Your task to perform on an android device: Search for usb-c to usb-a on bestbuy.com, select the first entry, and add it to the cart. Image 0: 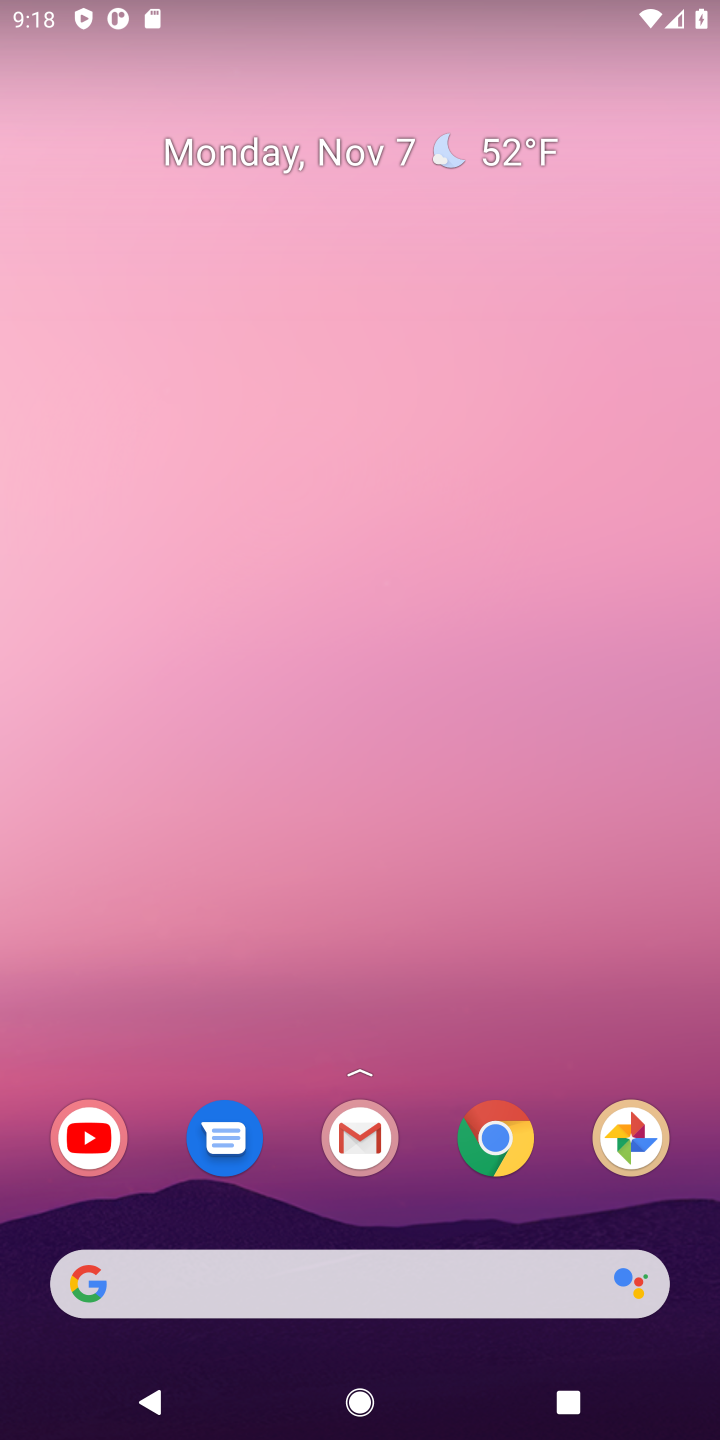
Step 0: drag from (305, 1177) to (410, 233)
Your task to perform on an android device: Search for usb-c to usb-a on bestbuy.com, select the first entry, and add it to the cart. Image 1: 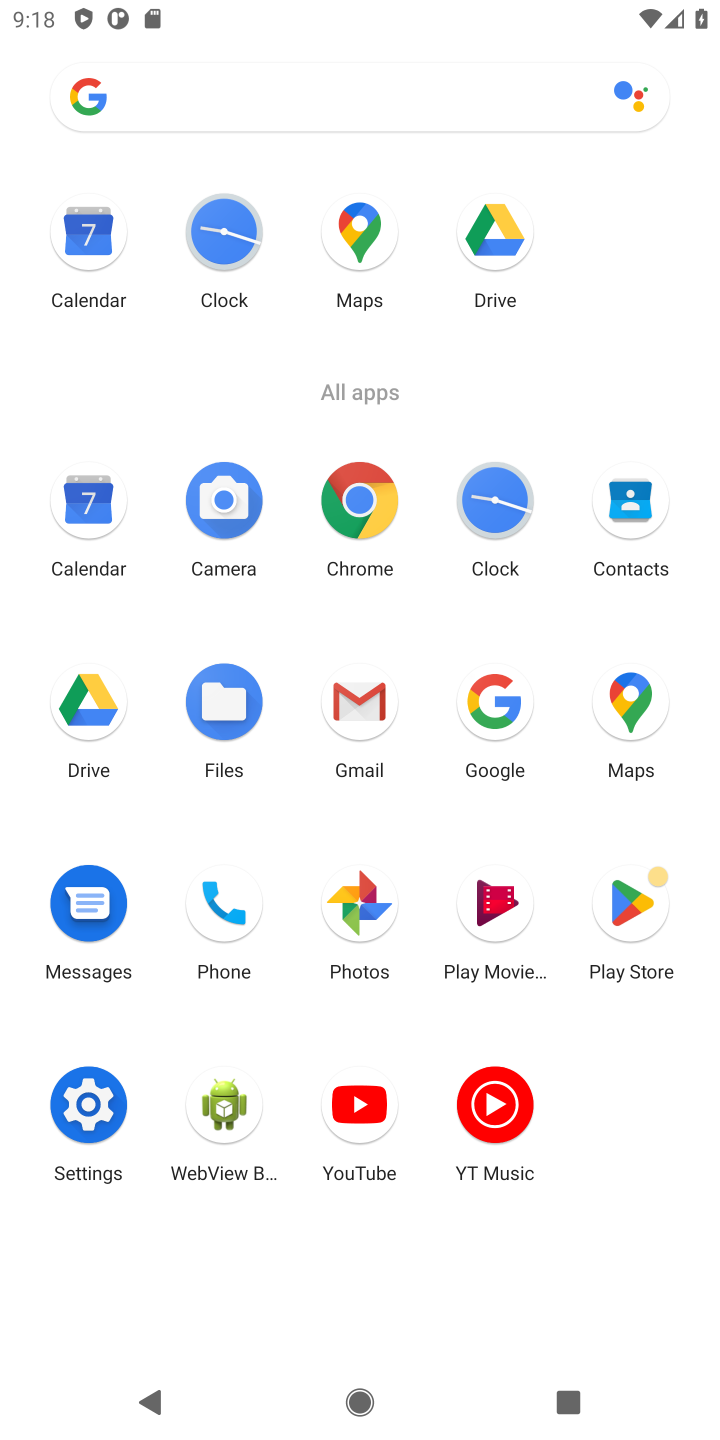
Step 1: click (509, 726)
Your task to perform on an android device: Search for usb-c to usb-a on bestbuy.com, select the first entry, and add it to the cart. Image 2: 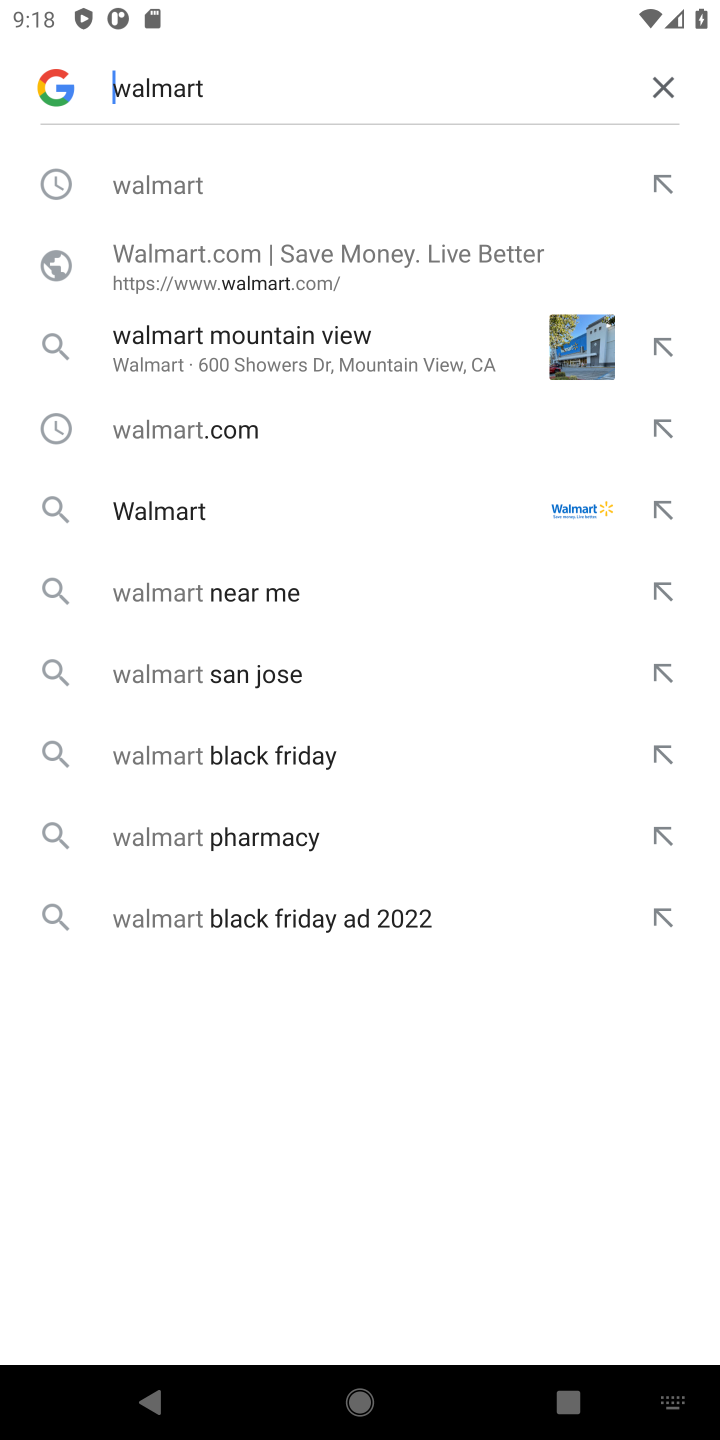
Step 2: click (668, 89)
Your task to perform on an android device: Search for usb-c to usb-a on bestbuy.com, select the first entry, and add it to the cart. Image 3: 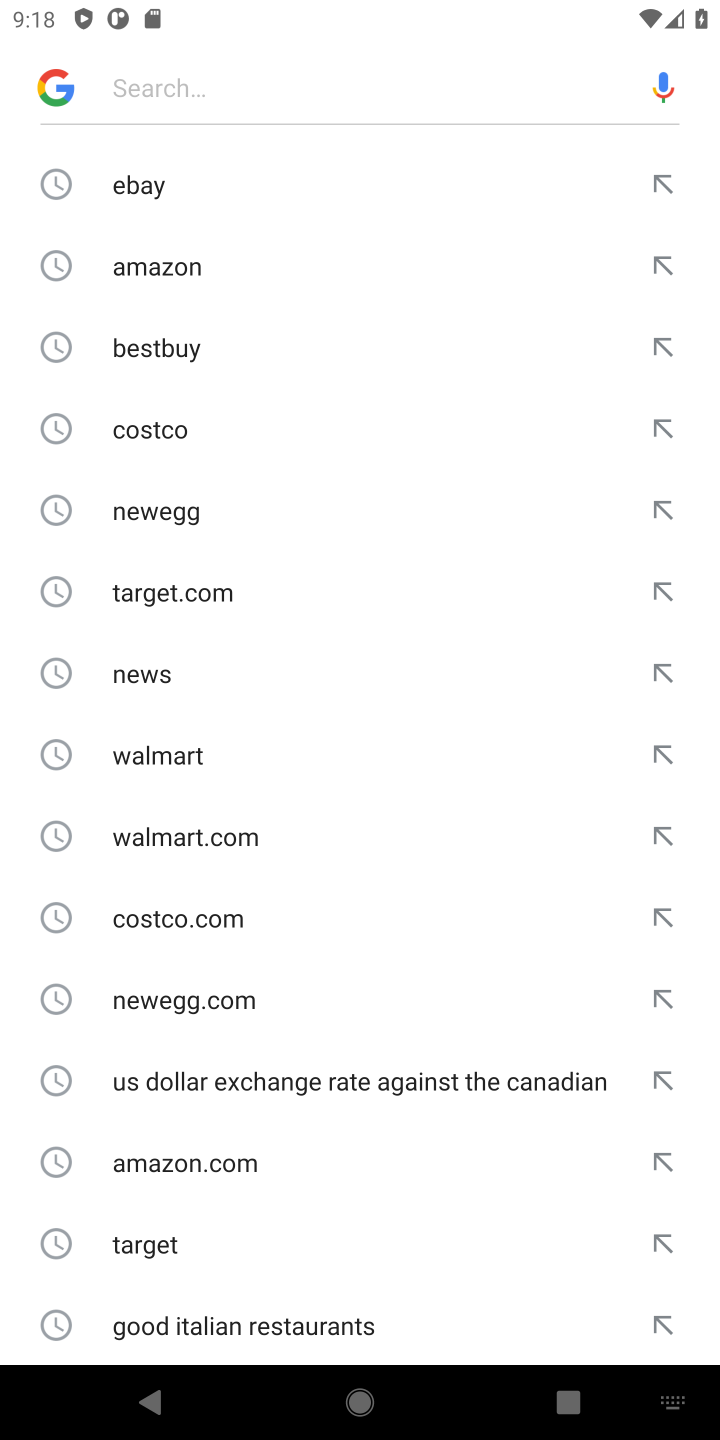
Step 3: type "bestbuy.com"
Your task to perform on an android device: Search for usb-c to usb-a on bestbuy.com, select the first entry, and add it to the cart. Image 4: 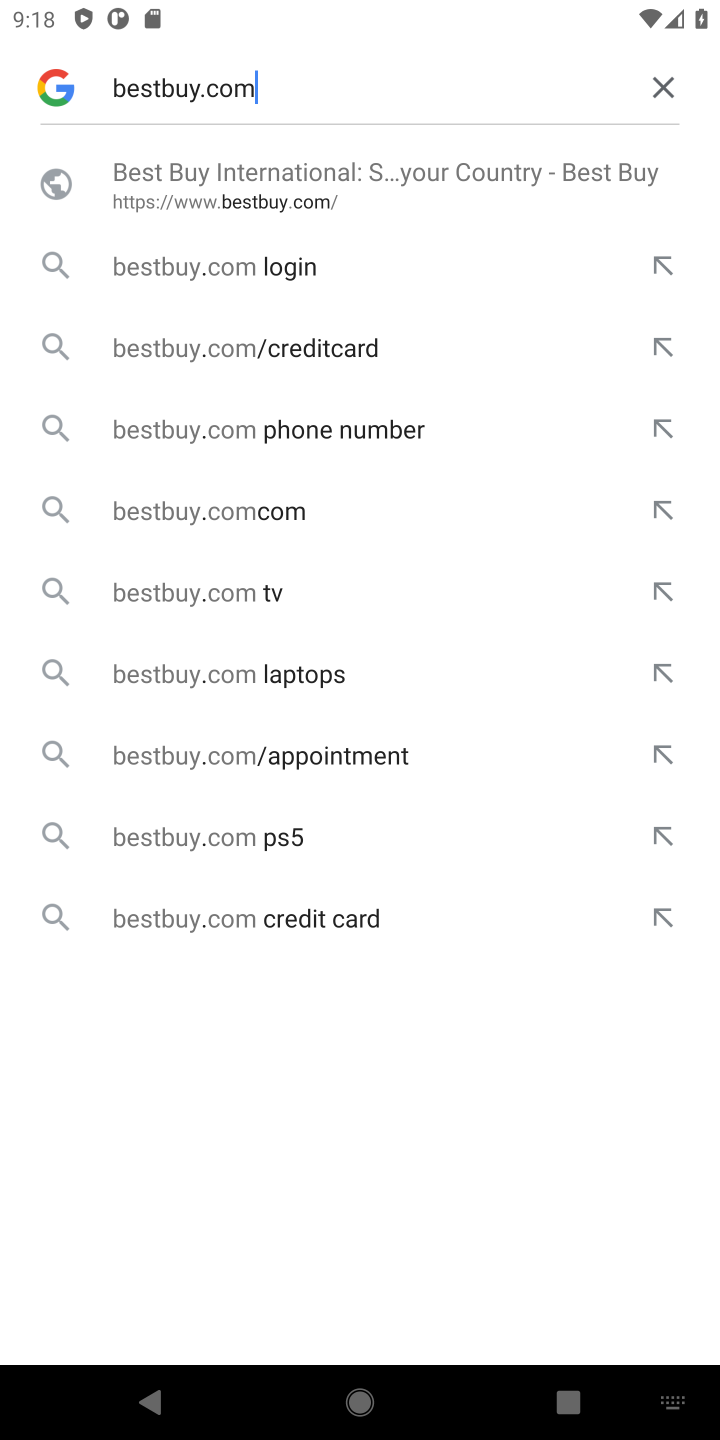
Step 4: click (360, 190)
Your task to perform on an android device: Search for usb-c to usb-a on bestbuy.com, select the first entry, and add it to the cart. Image 5: 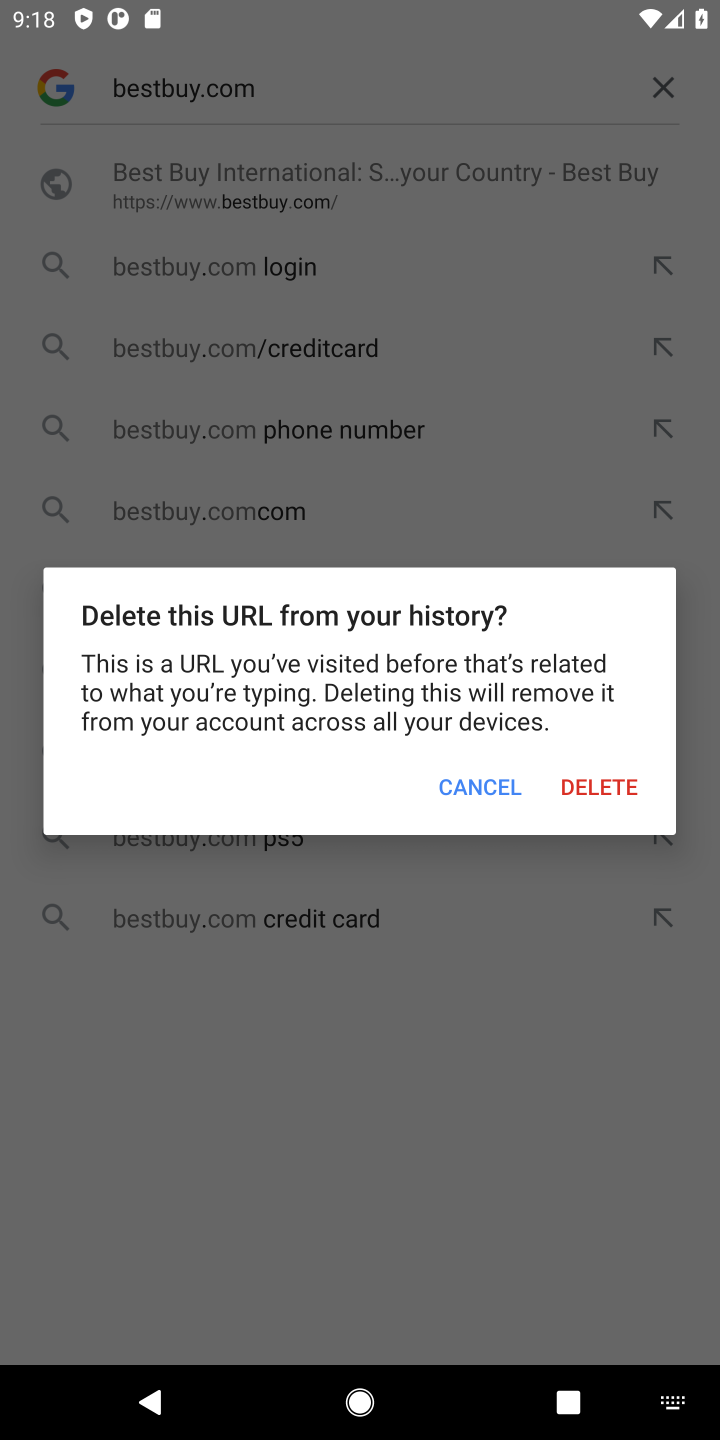
Step 5: click (446, 789)
Your task to perform on an android device: Search for usb-c to usb-a on bestbuy.com, select the first entry, and add it to the cart. Image 6: 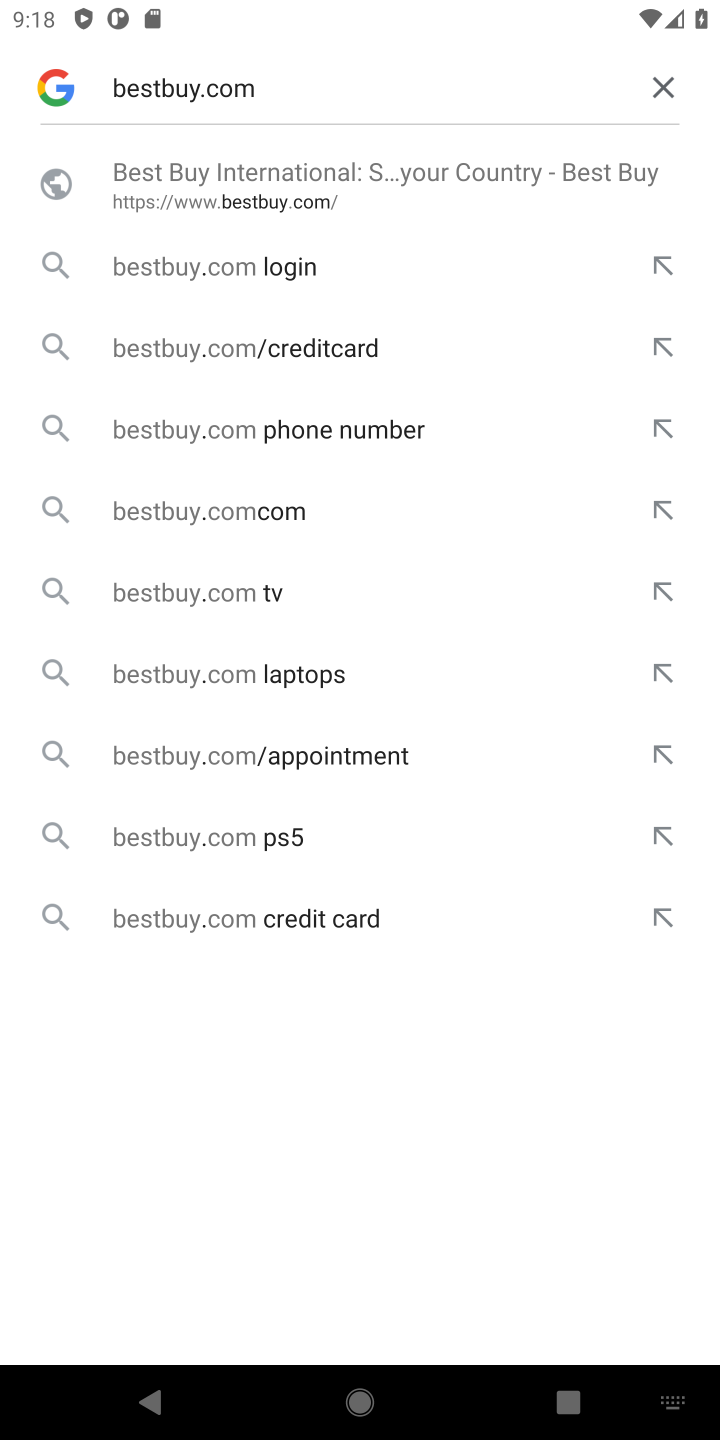
Step 6: click (355, 206)
Your task to perform on an android device: Search for usb-c to usb-a on bestbuy.com, select the first entry, and add it to the cart. Image 7: 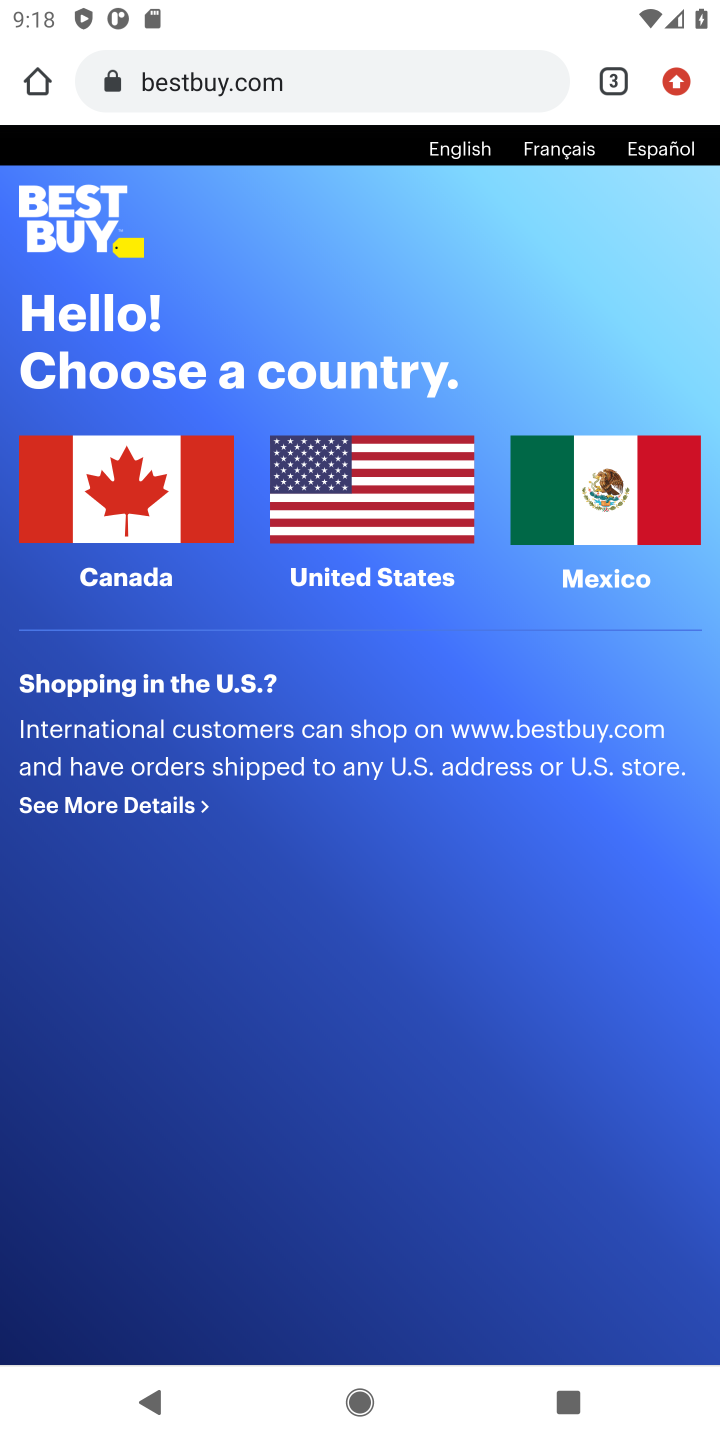
Step 7: click (420, 484)
Your task to perform on an android device: Search for usb-c to usb-a on bestbuy.com, select the first entry, and add it to the cart. Image 8: 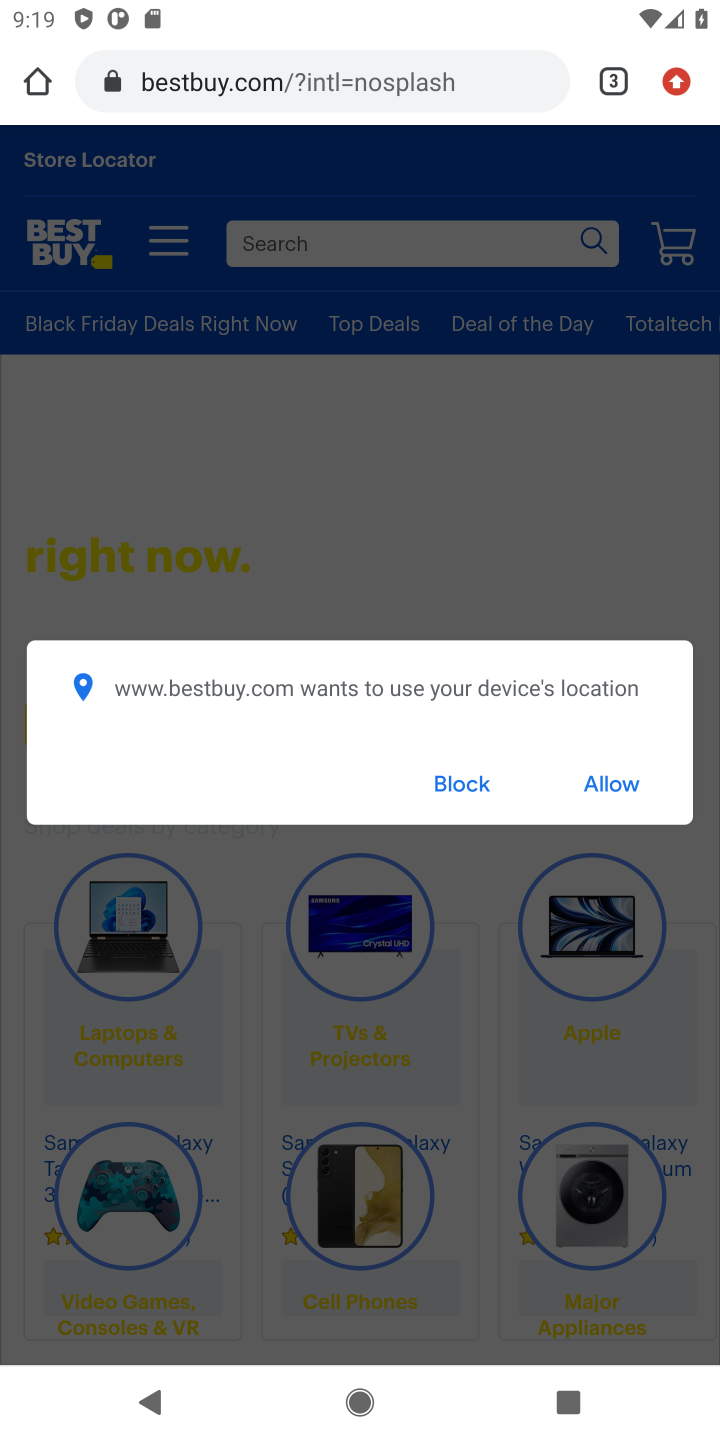
Step 8: click (471, 776)
Your task to perform on an android device: Search for usb-c to usb-a on bestbuy.com, select the first entry, and add it to the cart. Image 9: 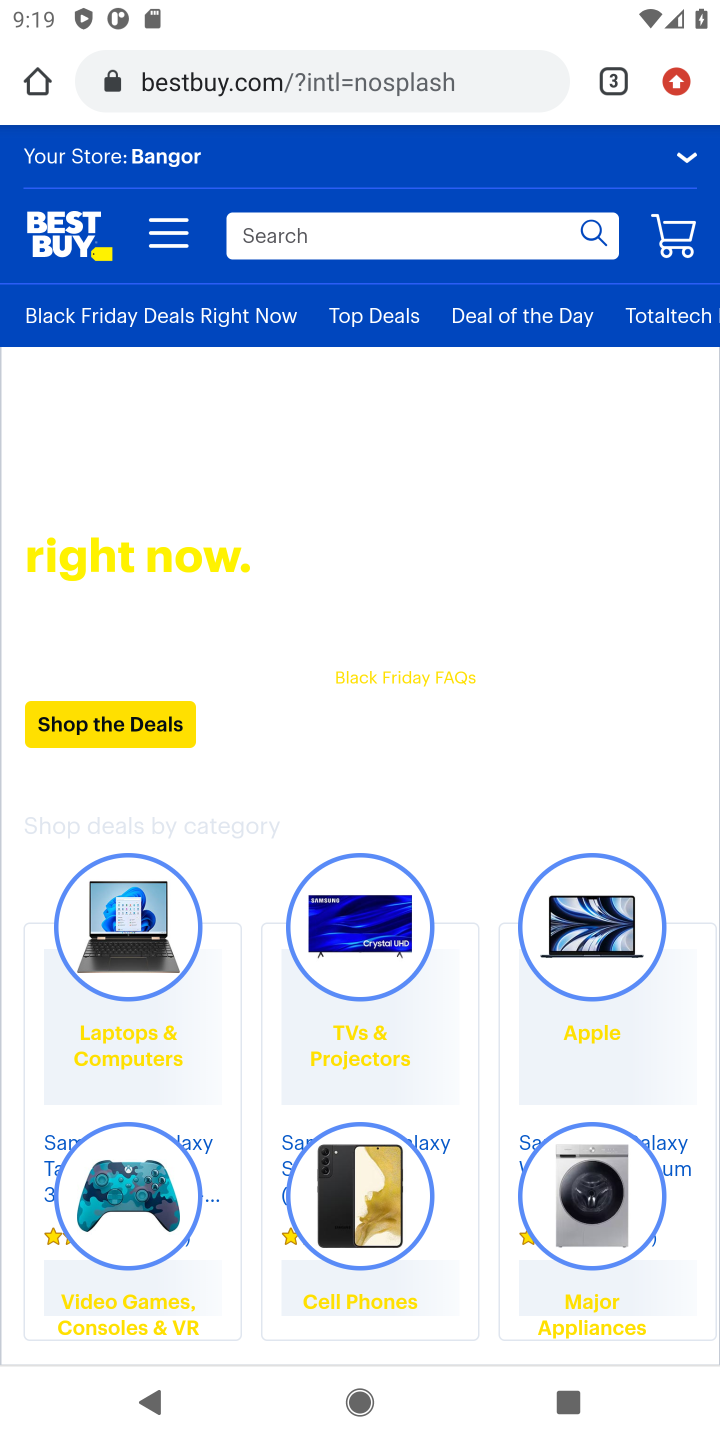
Step 9: click (403, 226)
Your task to perform on an android device: Search for usb-c to usb-a on bestbuy.com, select the first entry, and add it to the cart. Image 10: 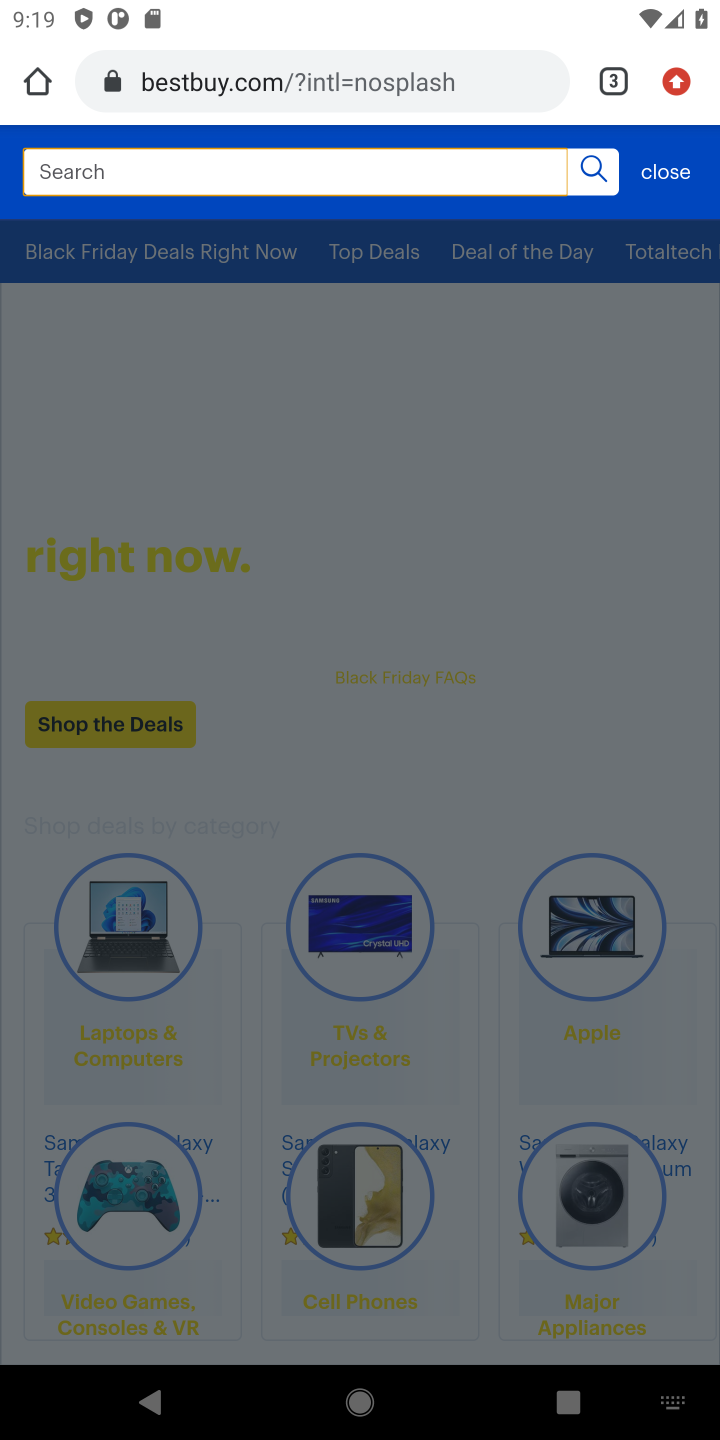
Step 10: type "usb-c to usb-a"
Your task to perform on an android device: Search for usb-c to usb-a on bestbuy.com, select the first entry, and add it to the cart. Image 11: 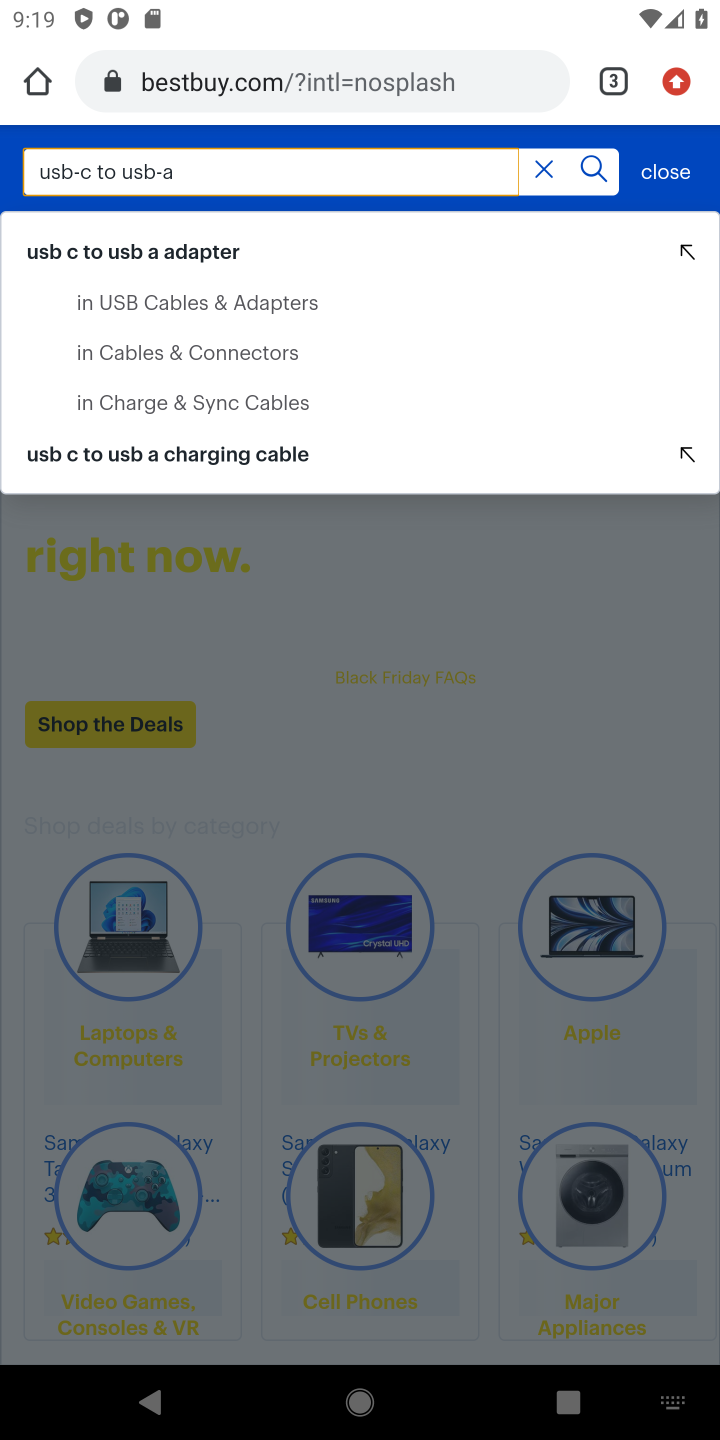
Step 11: click (591, 171)
Your task to perform on an android device: Search for usb-c to usb-a on bestbuy.com, select the first entry, and add it to the cart. Image 12: 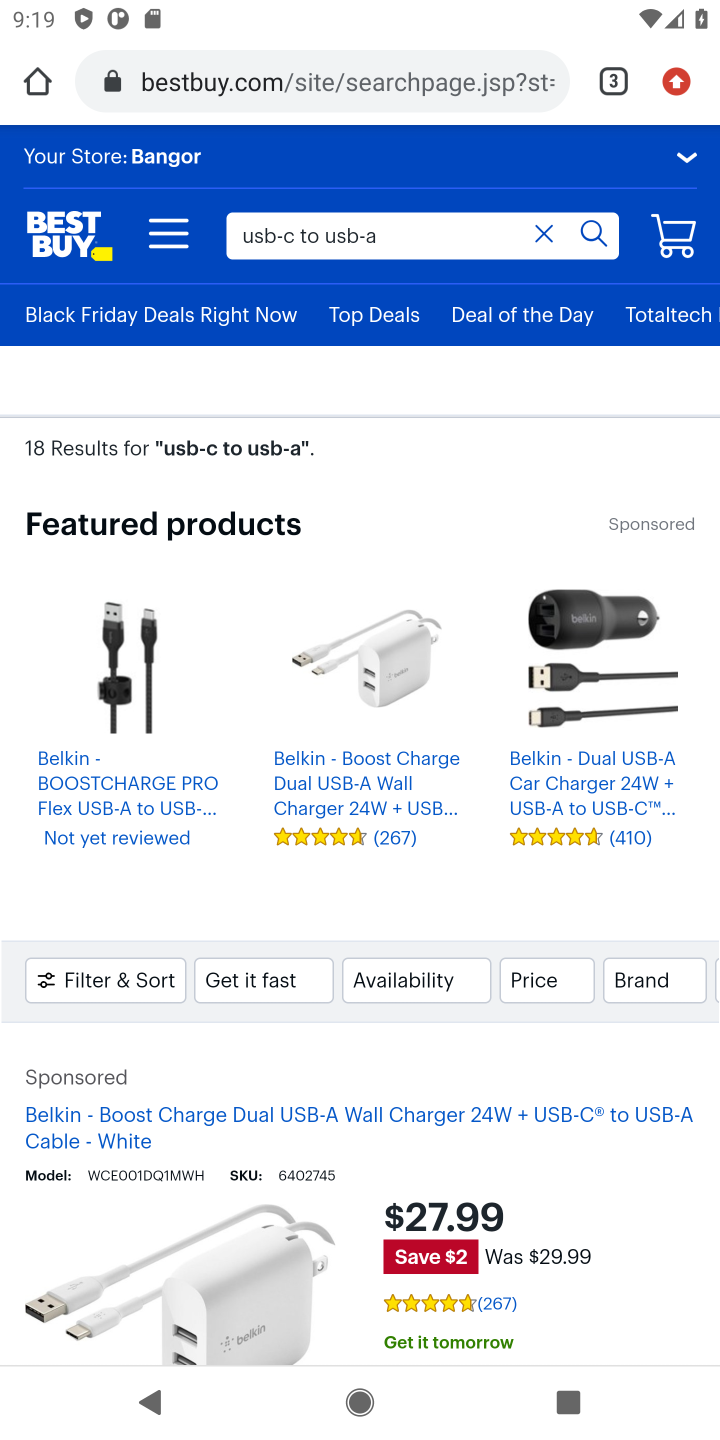
Step 12: click (349, 1116)
Your task to perform on an android device: Search for usb-c to usb-a on bestbuy.com, select the first entry, and add it to the cart. Image 13: 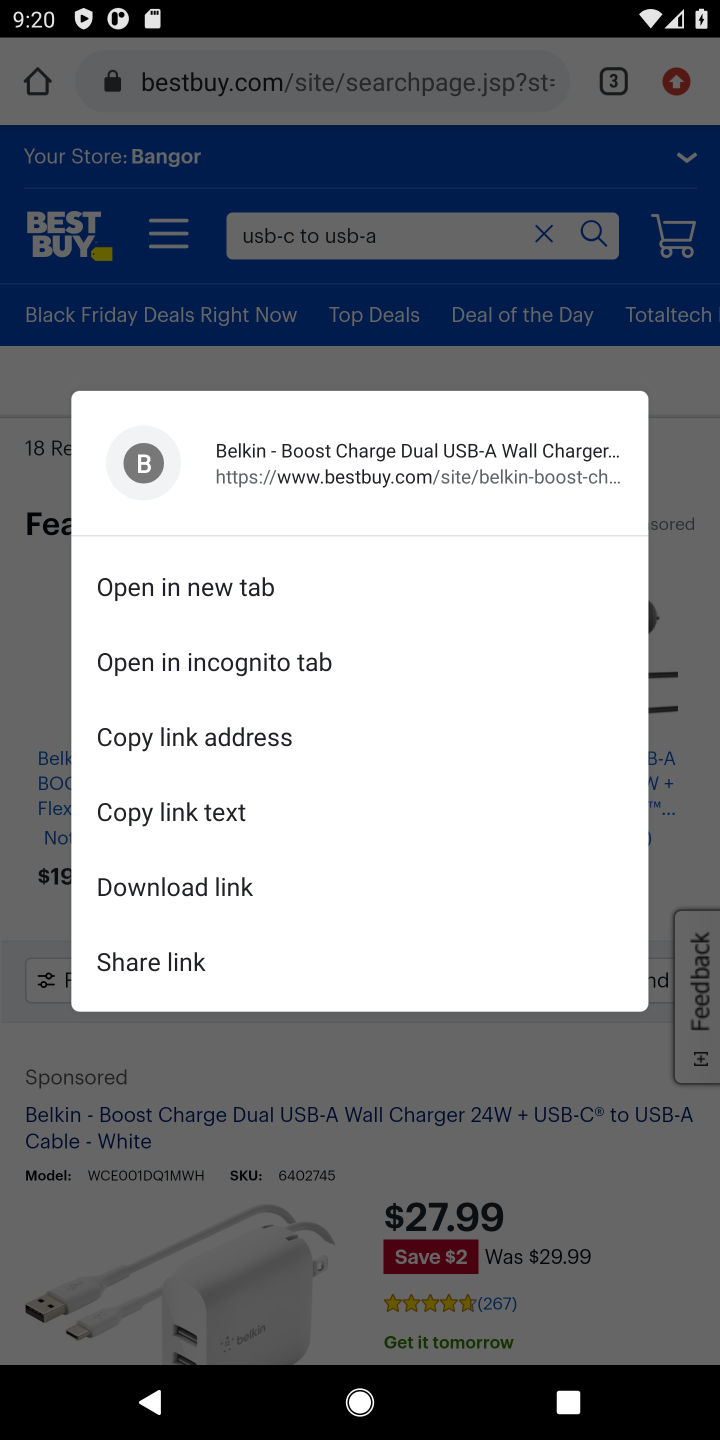
Step 13: click (490, 1198)
Your task to perform on an android device: Search for usb-c to usb-a on bestbuy.com, select the first entry, and add it to the cart. Image 14: 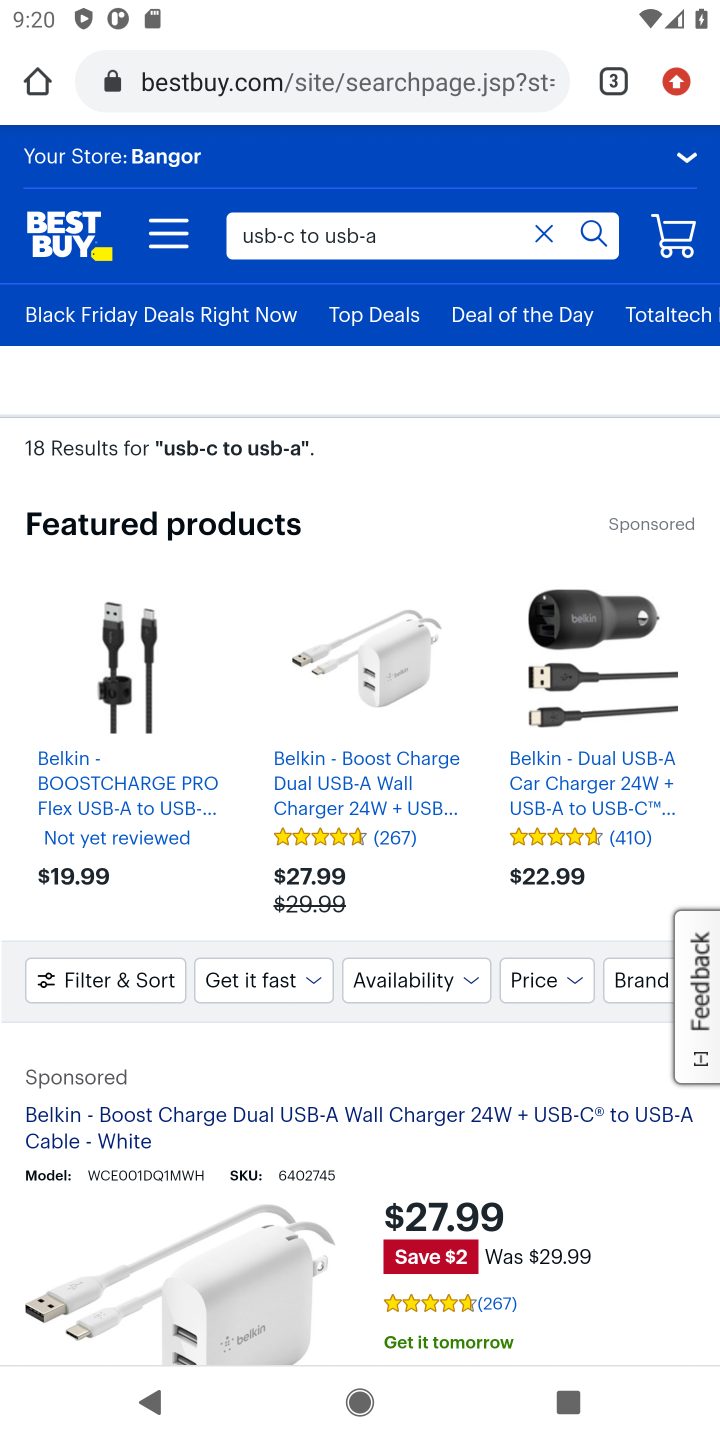
Step 14: click (350, 1127)
Your task to perform on an android device: Search for usb-c to usb-a on bestbuy.com, select the first entry, and add it to the cart. Image 15: 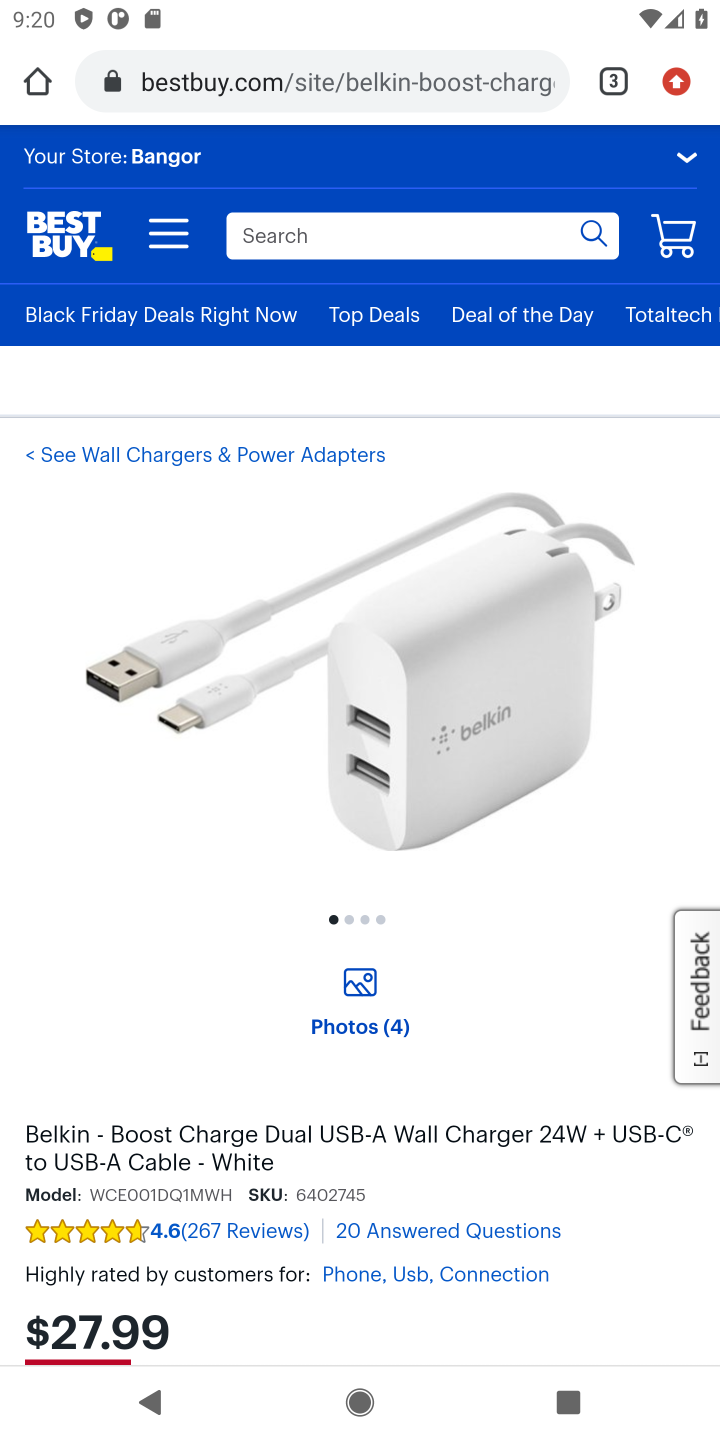
Step 15: drag from (443, 1073) to (443, 735)
Your task to perform on an android device: Search for usb-c to usb-a on bestbuy.com, select the first entry, and add it to the cart. Image 16: 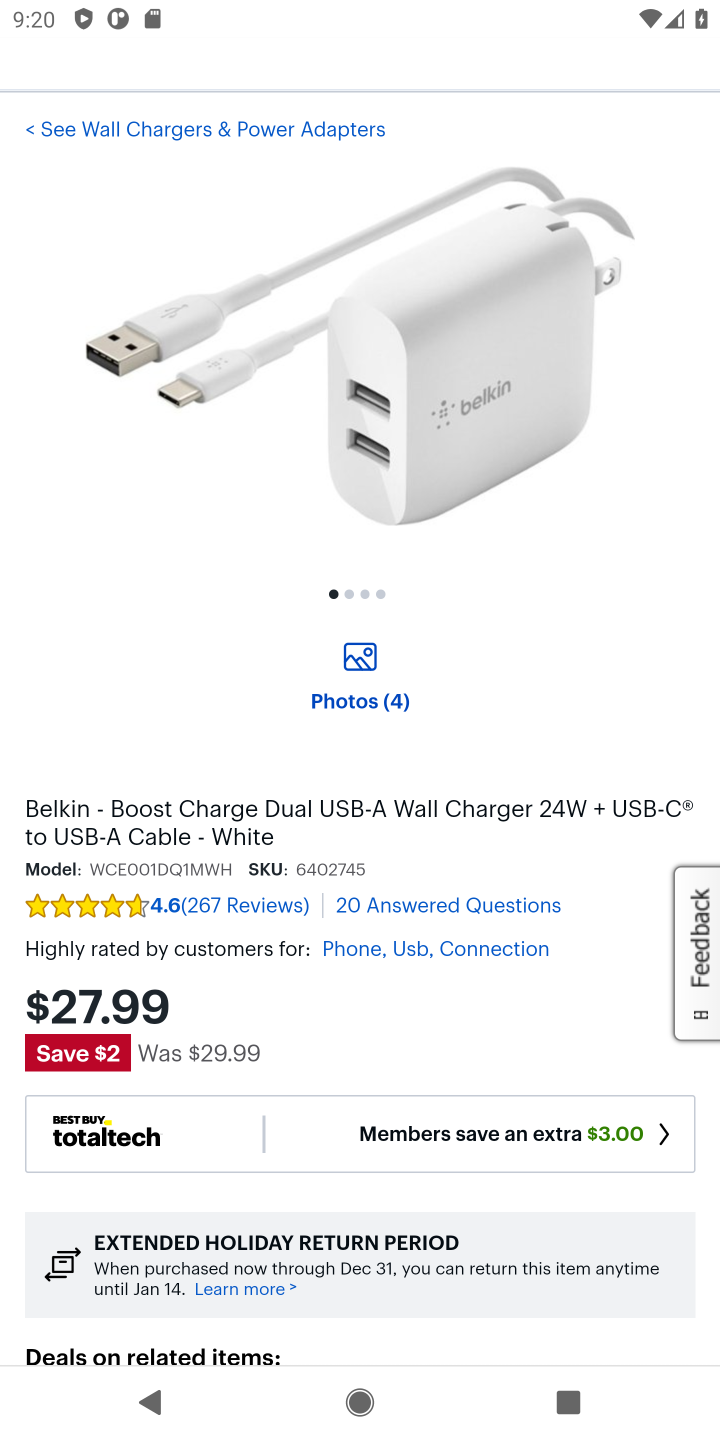
Step 16: drag from (451, 1125) to (391, 446)
Your task to perform on an android device: Search for usb-c to usb-a on bestbuy.com, select the first entry, and add it to the cart. Image 17: 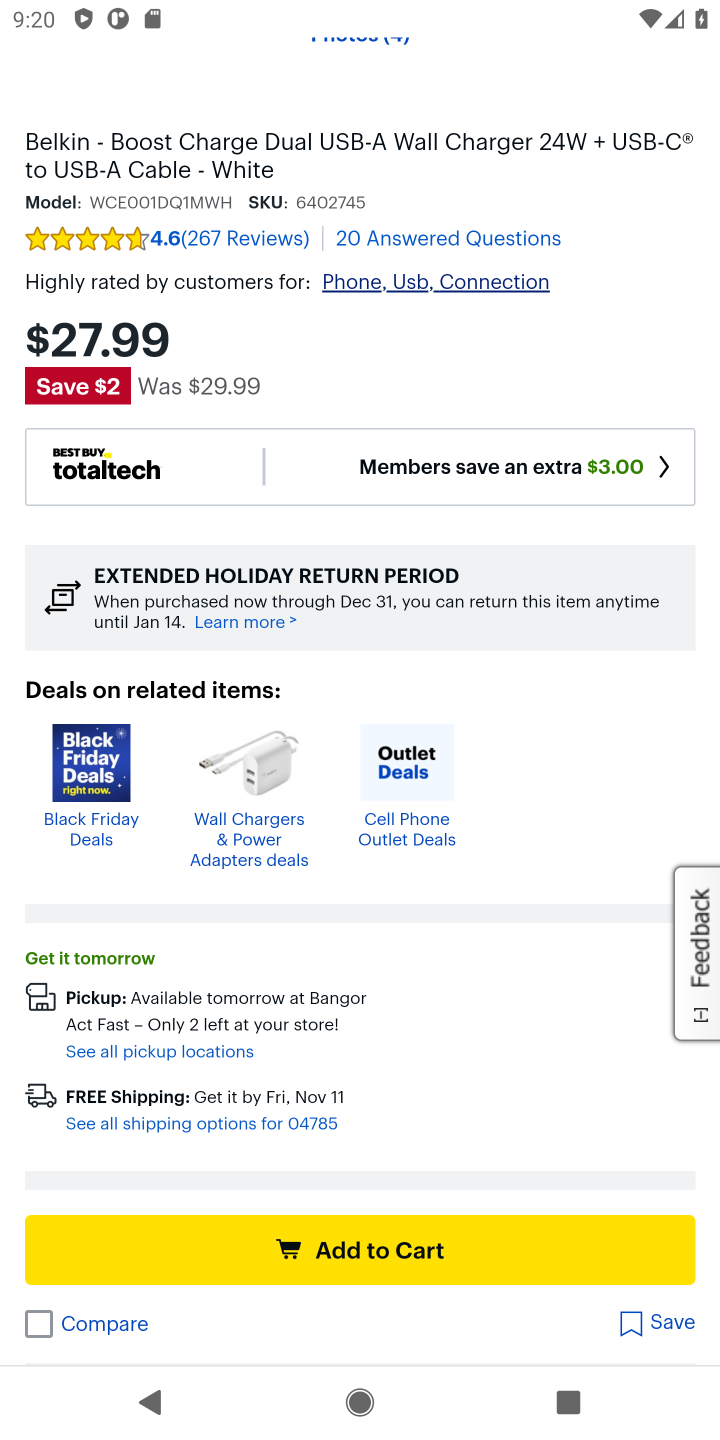
Step 17: click (335, 1257)
Your task to perform on an android device: Search for usb-c to usb-a on bestbuy.com, select the first entry, and add it to the cart. Image 18: 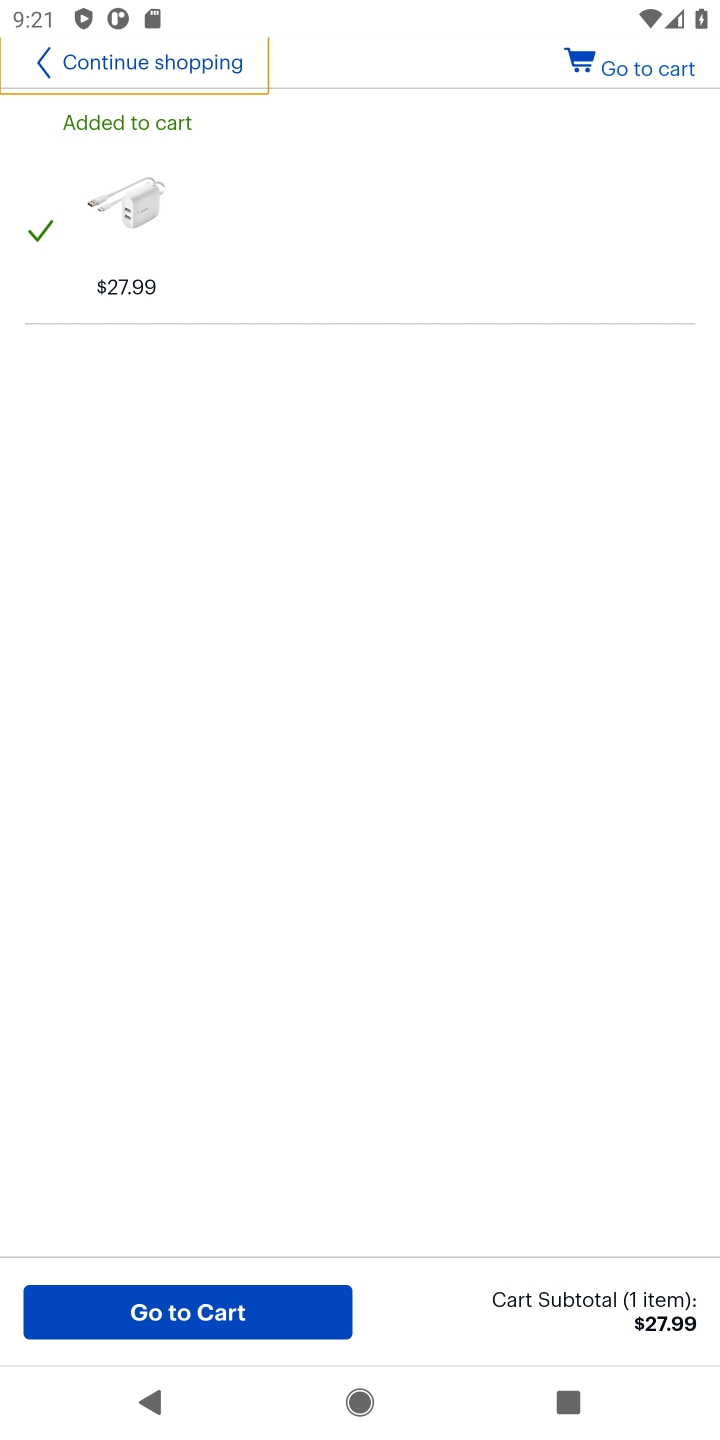
Step 18: task complete